Your task to perform on an android device: add a label to a message in the gmail app Image 0: 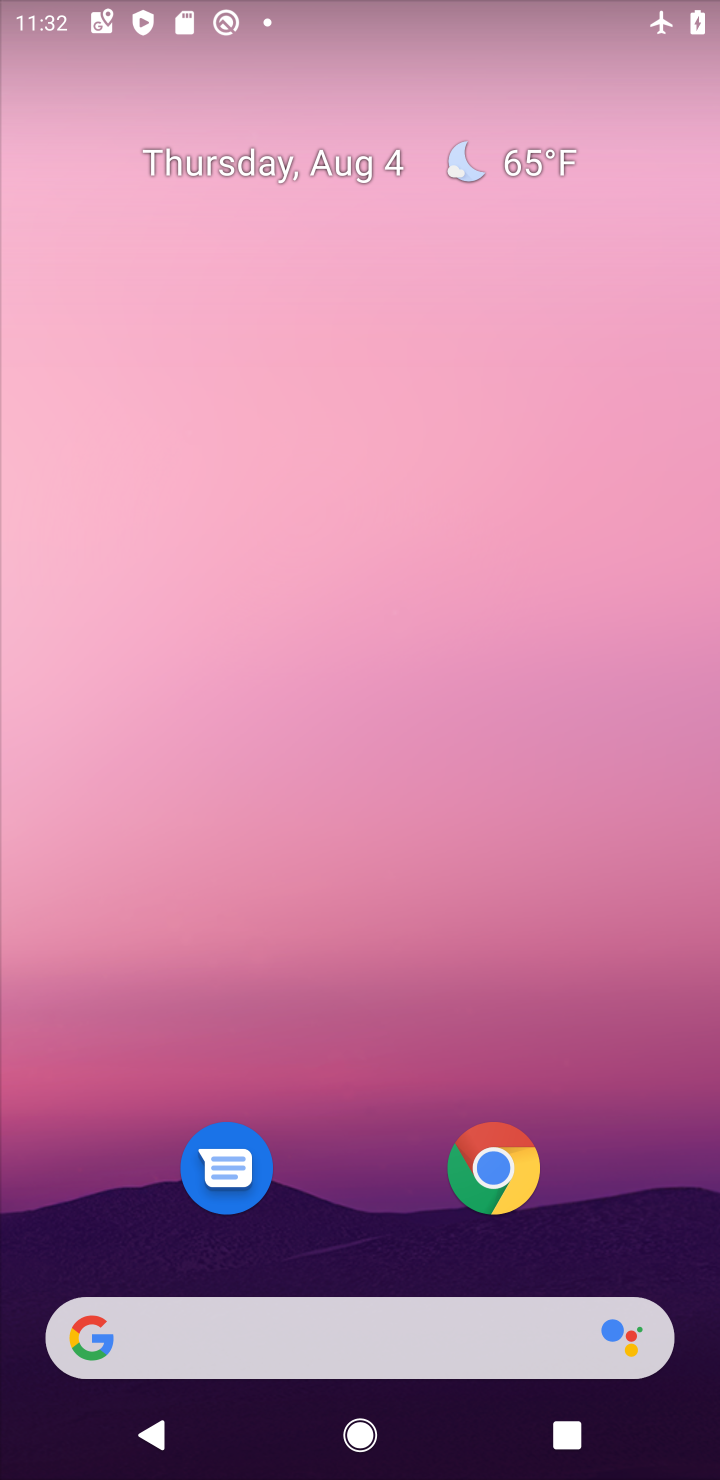
Step 0: drag from (585, 974) to (489, 78)
Your task to perform on an android device: add a label to a message in the gmail app Image 1: 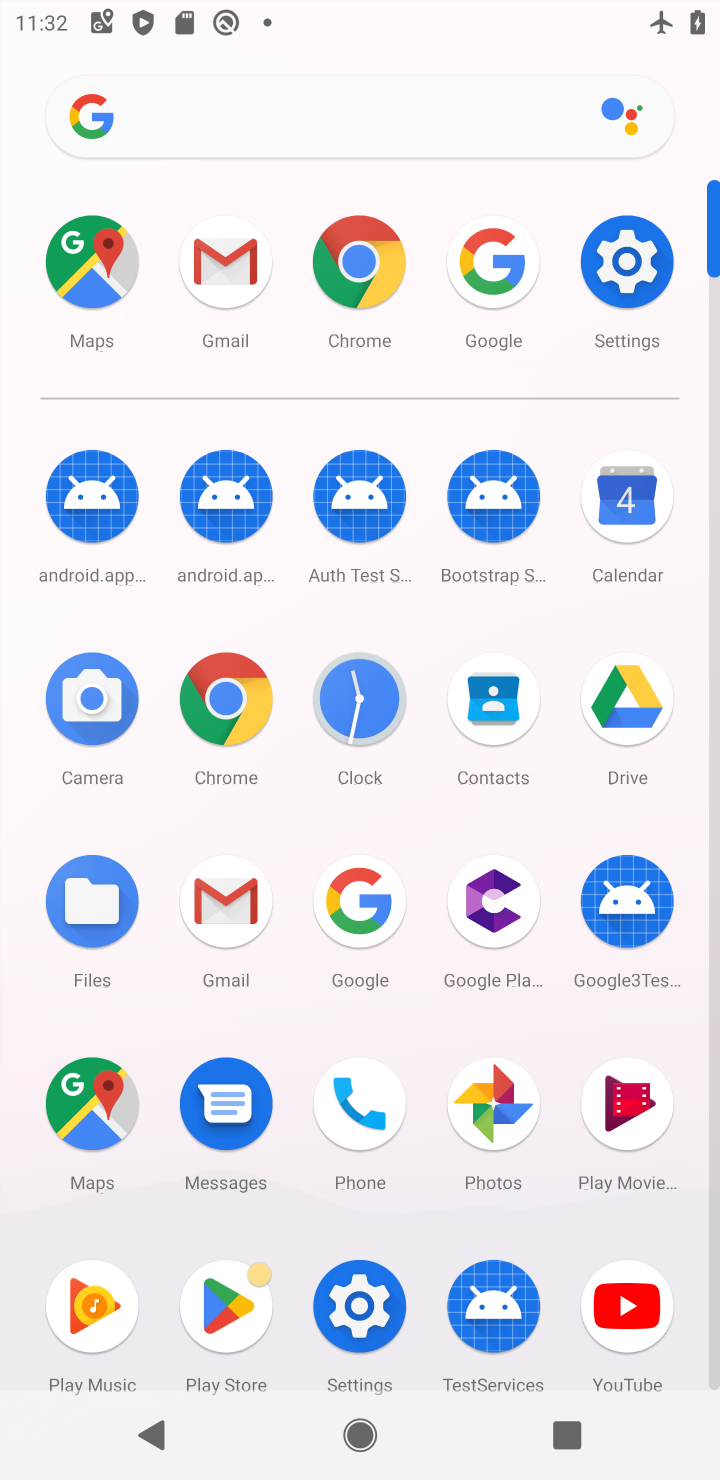
Step 1: click (240, 888)
Your task to perform on an android device: add a label to a message in the gmail app Image 2: 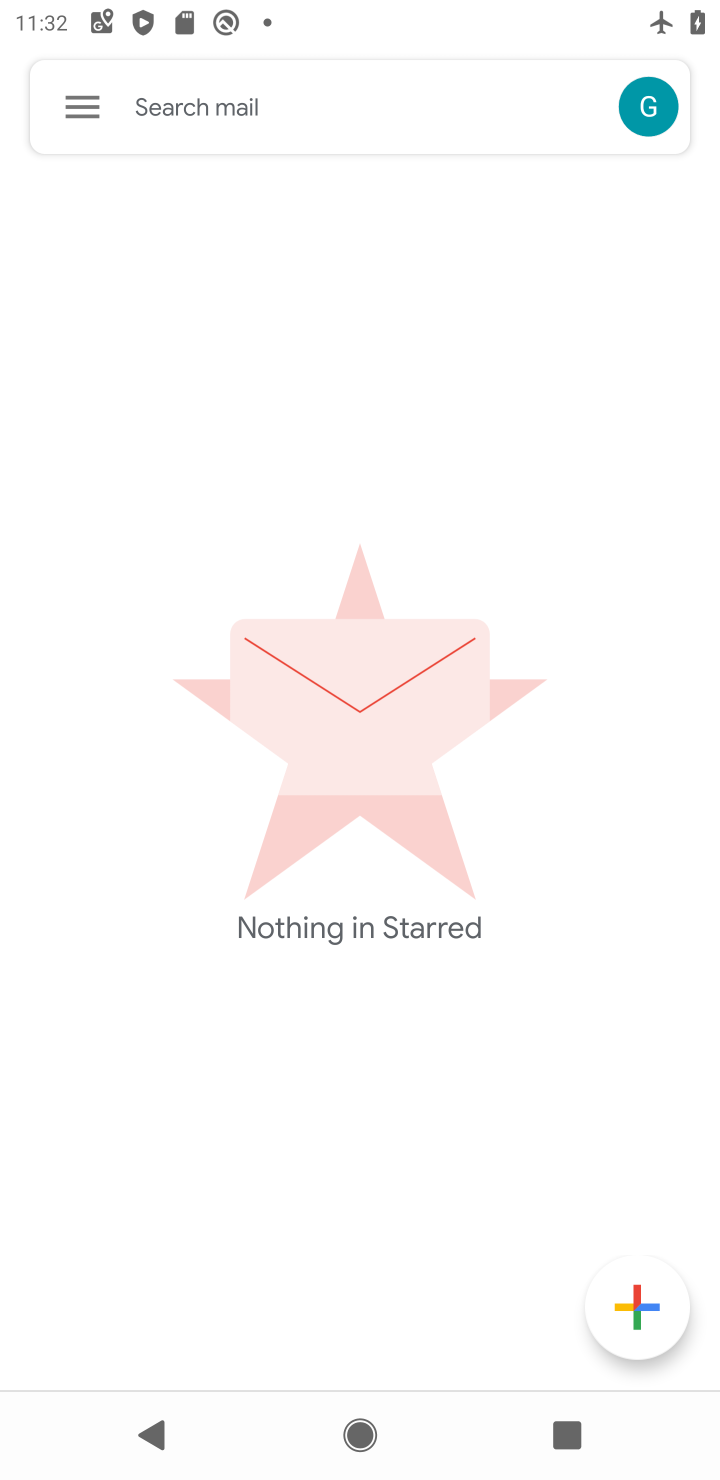
Step 2: task complete